Your task to perform on an android device: Is it going to rain today? Image 0: 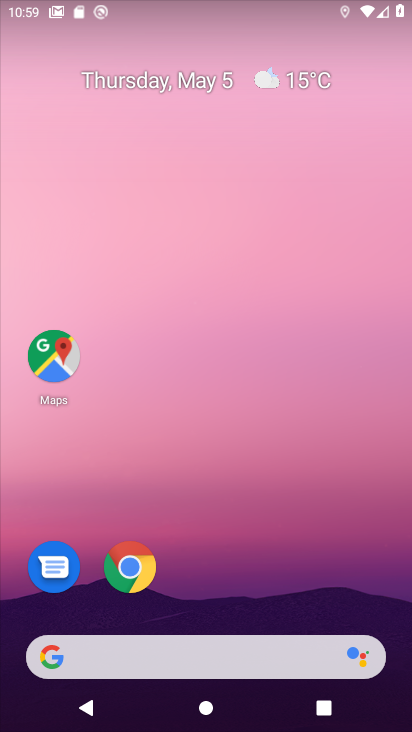
Step 0: click (299, 81)
Your task to perform on an android device: Is it going to rain today? Image 1: 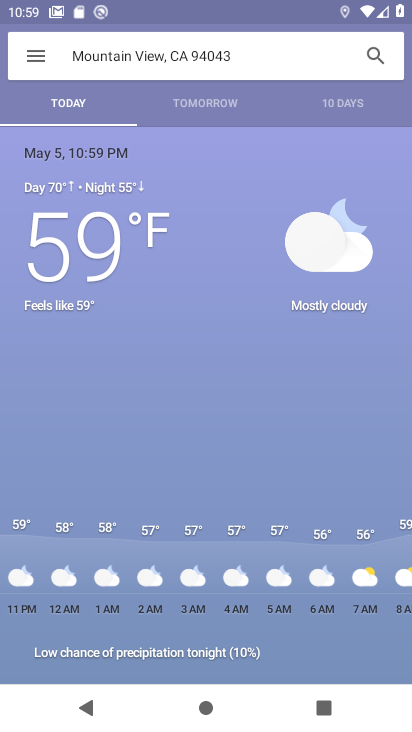
Step 1: task complete